Your task to perform on an android device: set the stopwatch Image 0: 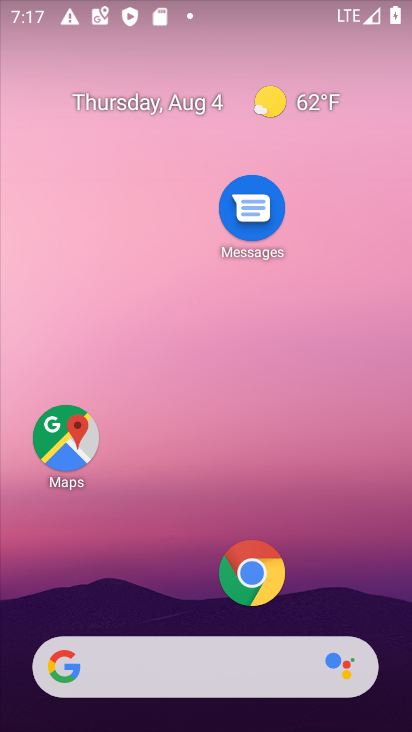
Step 0: press home button
Your task to perform on an android device: set the stopwatch Image 1: 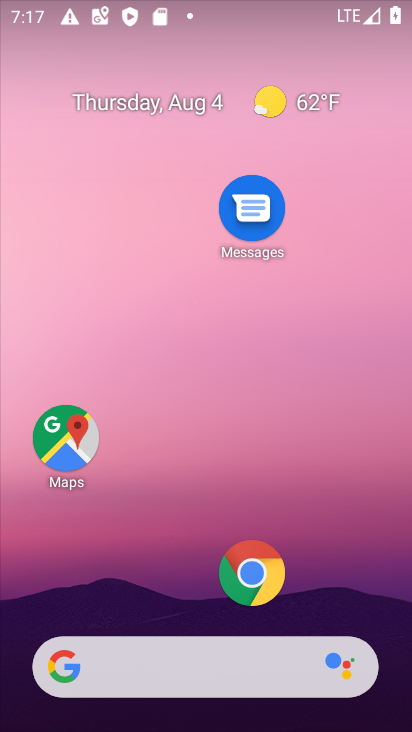
Step 1: drag from (165, 628) to (112, 160)
Your task to perform on an android device: set the stopwatch Image 2: 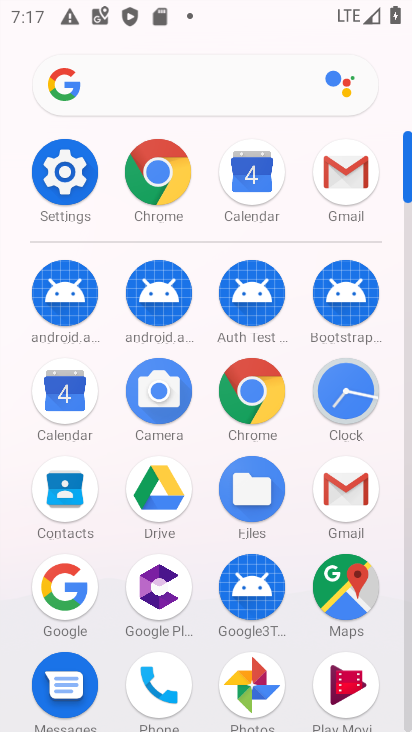
Step 2: click (350, 410)
Your task to perform on an android device: set the stopwatch Image 3: 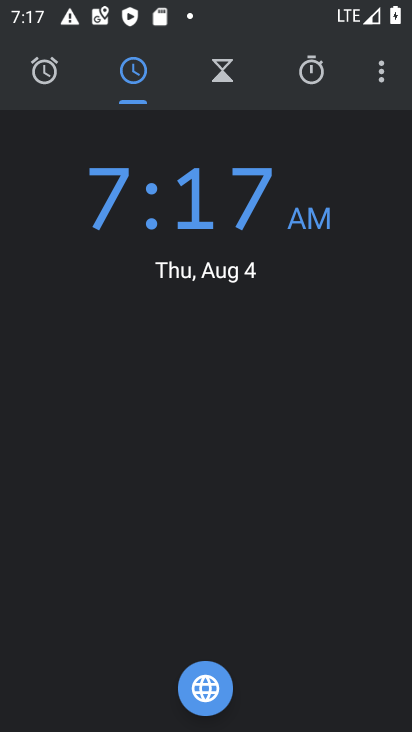
Step 3: click (318, 78)
Your task to perform on an android device: set the stopwatch Image 4: 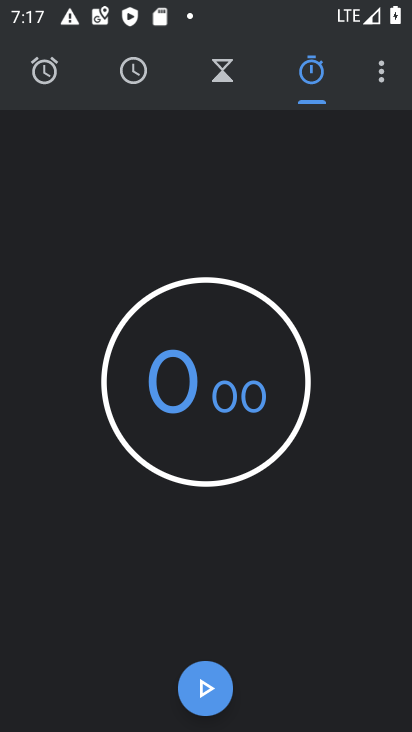
Step 4: click (203, 686)
Your task to perform on an android device: set the stopwatch Image 5: 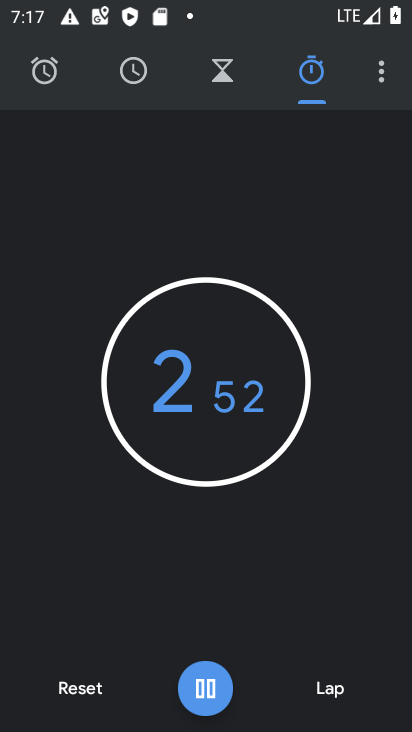
Step 5: task complete